Your task to perform on an android device: empty trash in the gmail app Image 0: 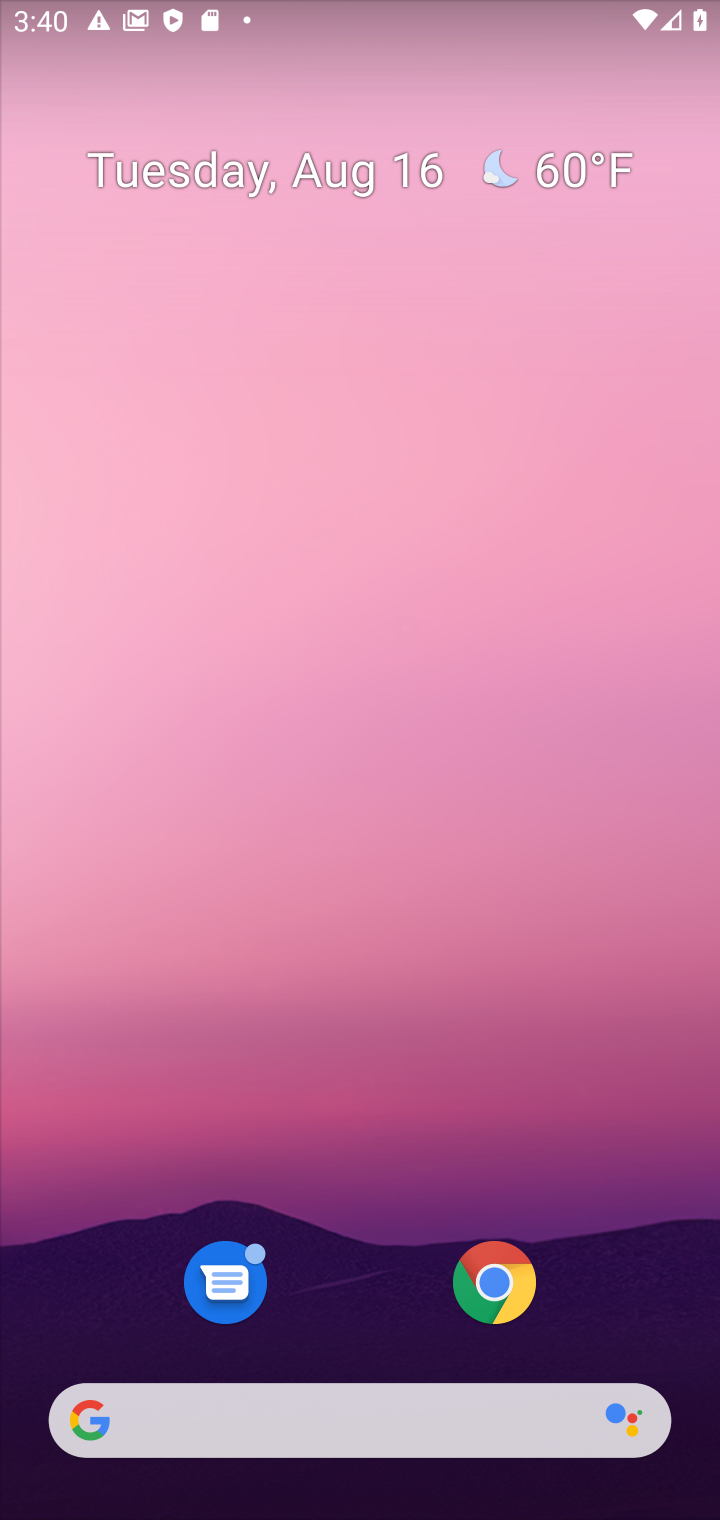
Step 0: drag from (324, 1318) to (531, 204)
Your task to perform on an android device: empty trash in the gmail app Image 1: 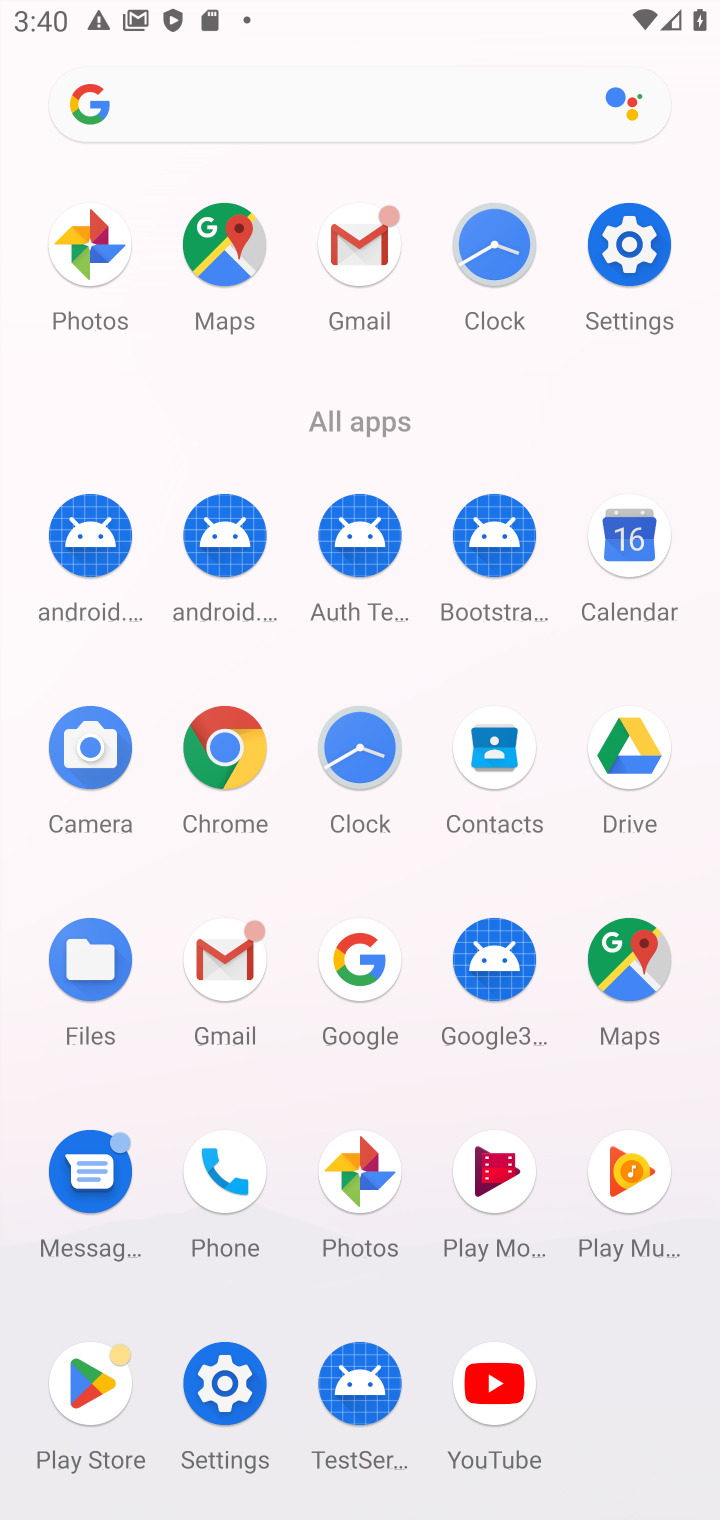
Step 1: click (364, 242)
Your task to perform on an android device: empty trash in the gmail app Image 2: 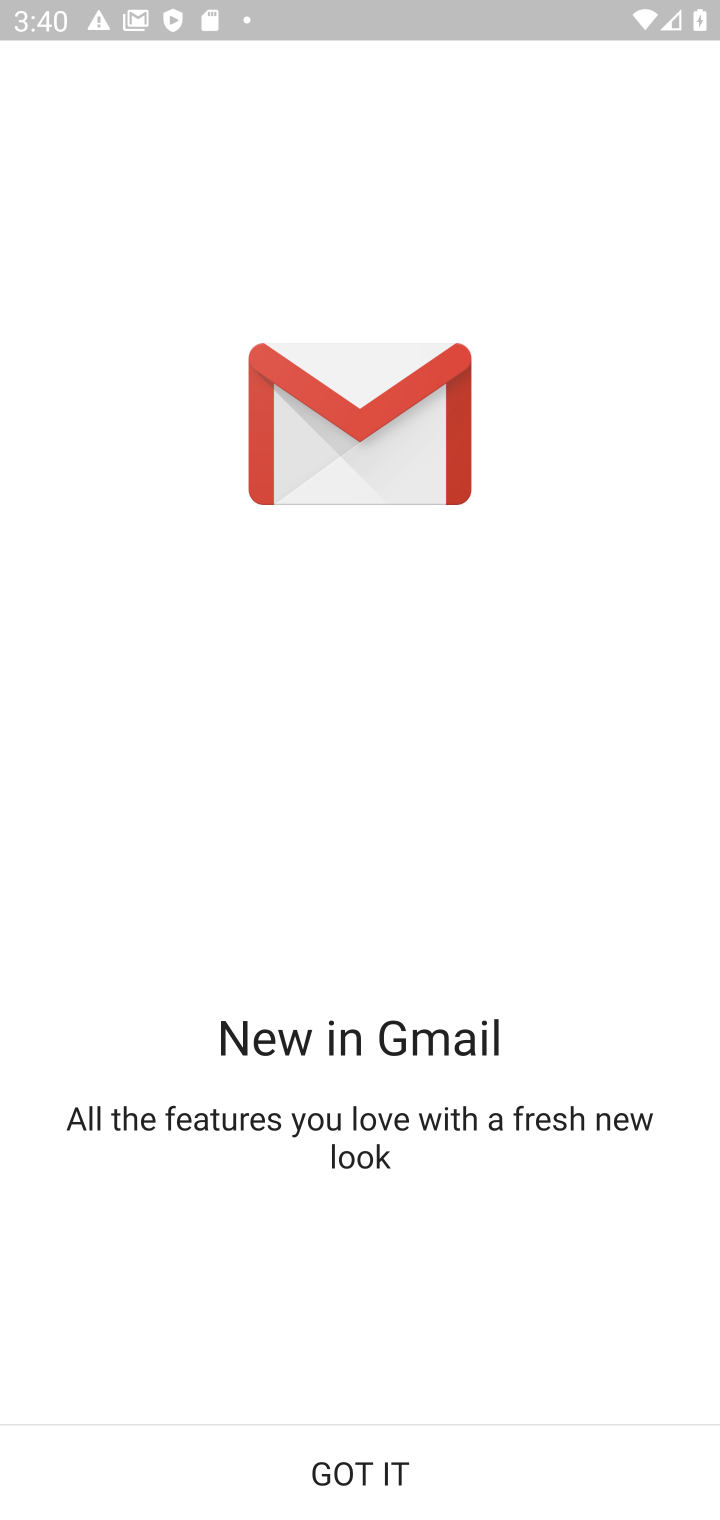
Step 2: click (348, 1445)
Your task to perform on an android device: empty trash in the gmail app Image 3: 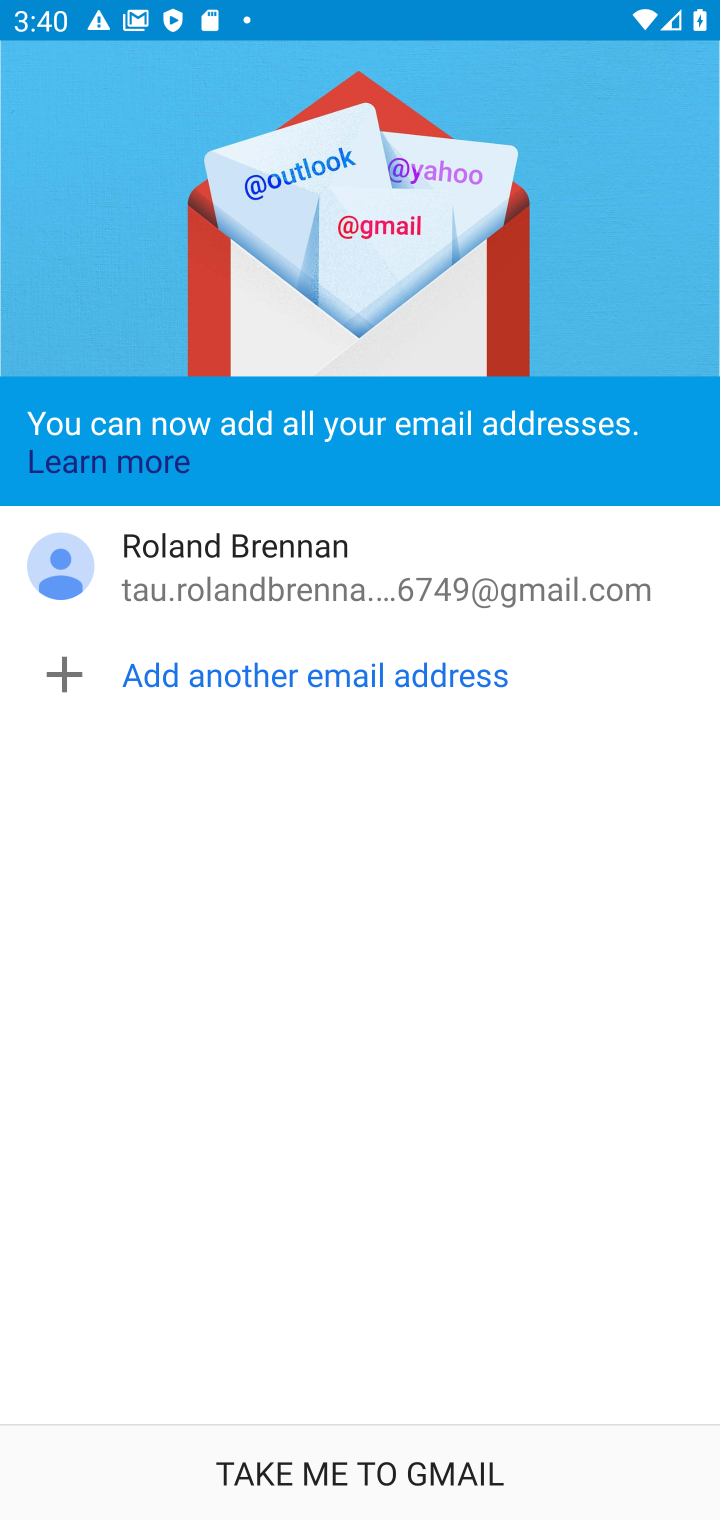
Step 3: click (342, 1459)
Your task to perform on an android device: empty trash in the gmail app Image 4: 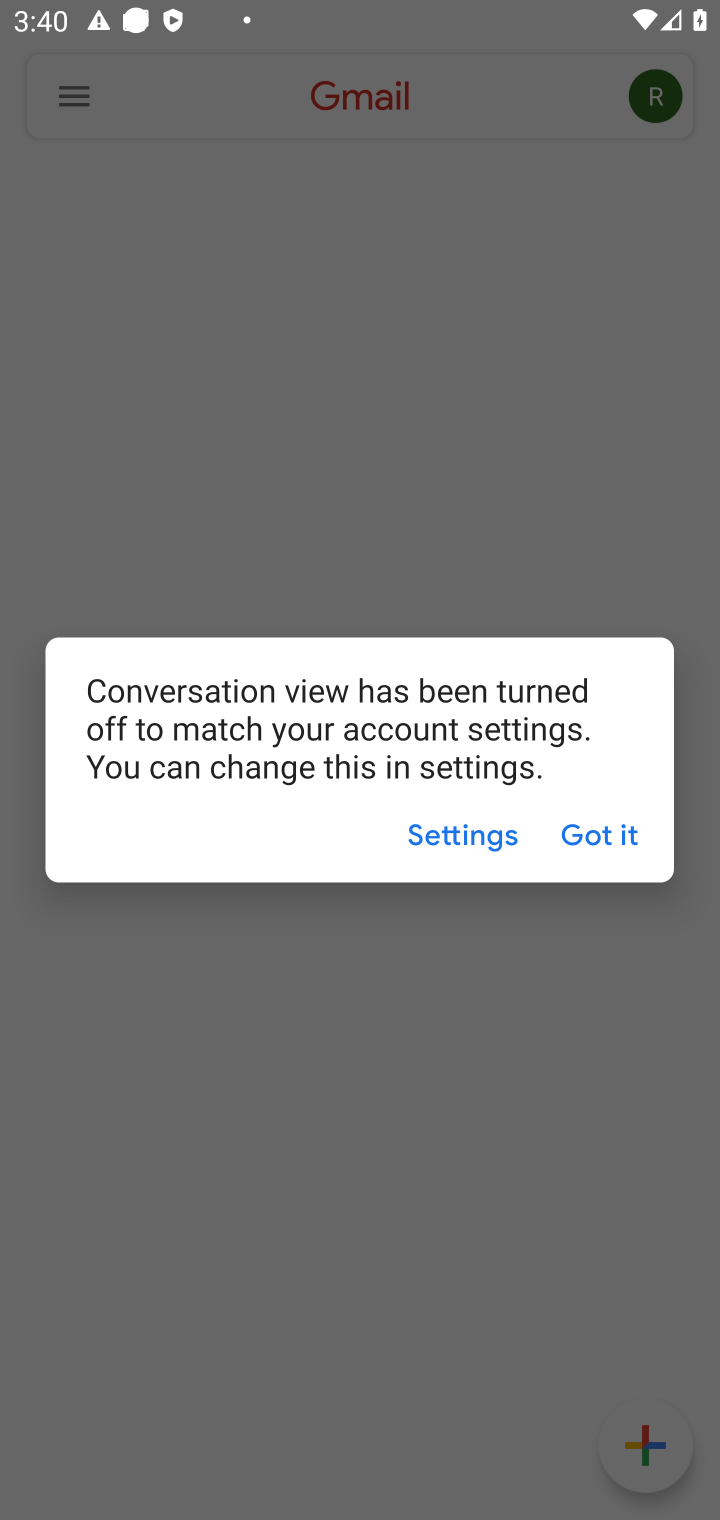
Step 4: click (593, 816)
Your task to perform on an android device: empty trash in the gmail app Image 5: 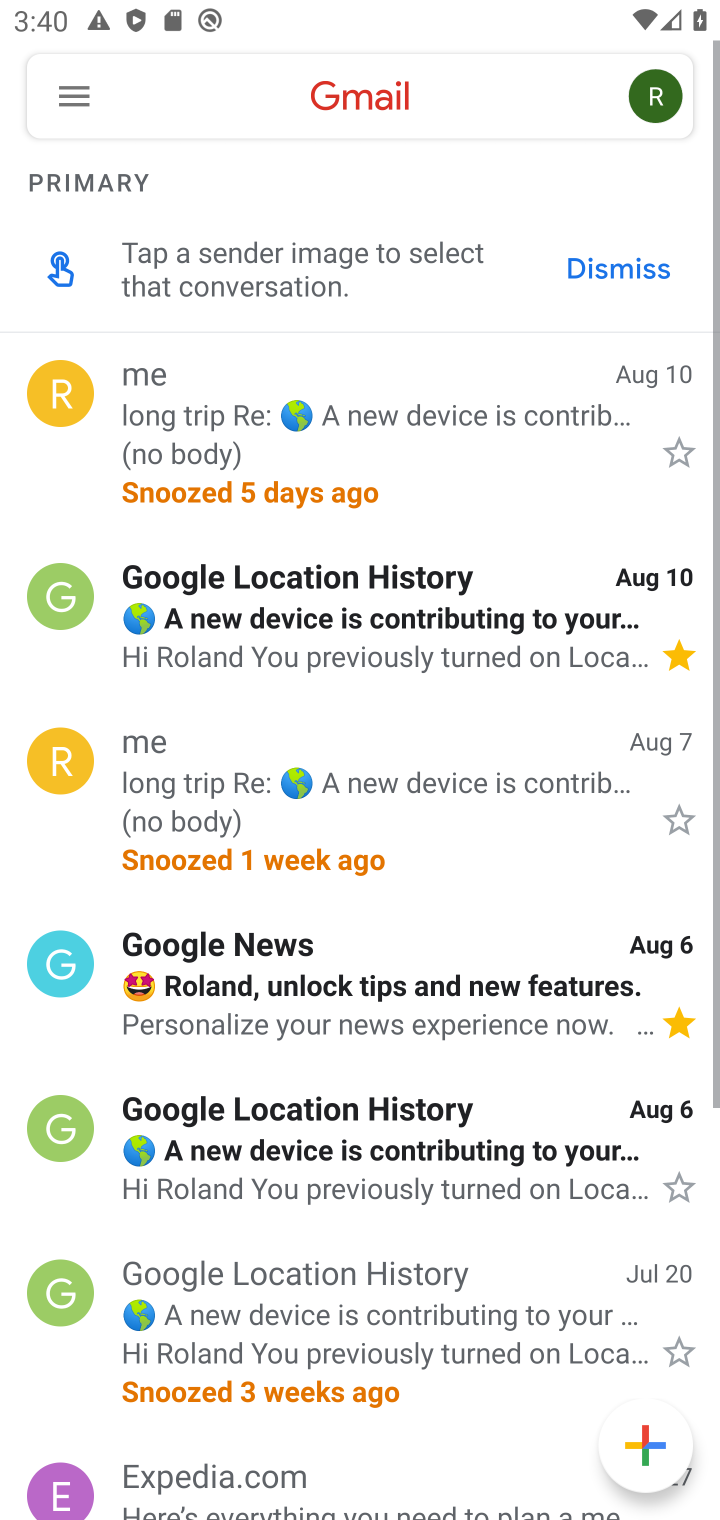
Step 5: click (72, 79)
Your task to perform on an android device: empty trash in the gmail app Image 6: 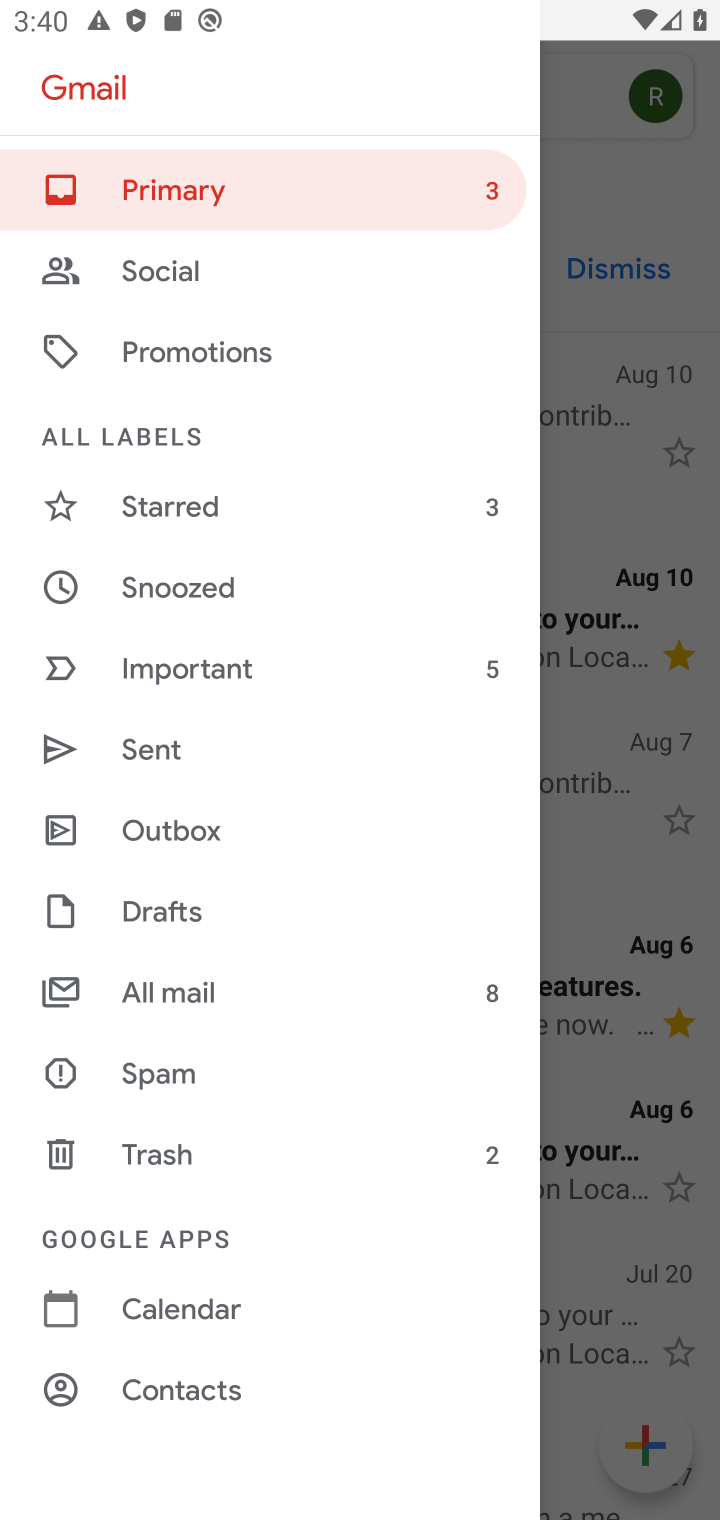
Step 6: click (158, 1153)
Your task to perform on an android device: empty trash in the gmail app Image 7: 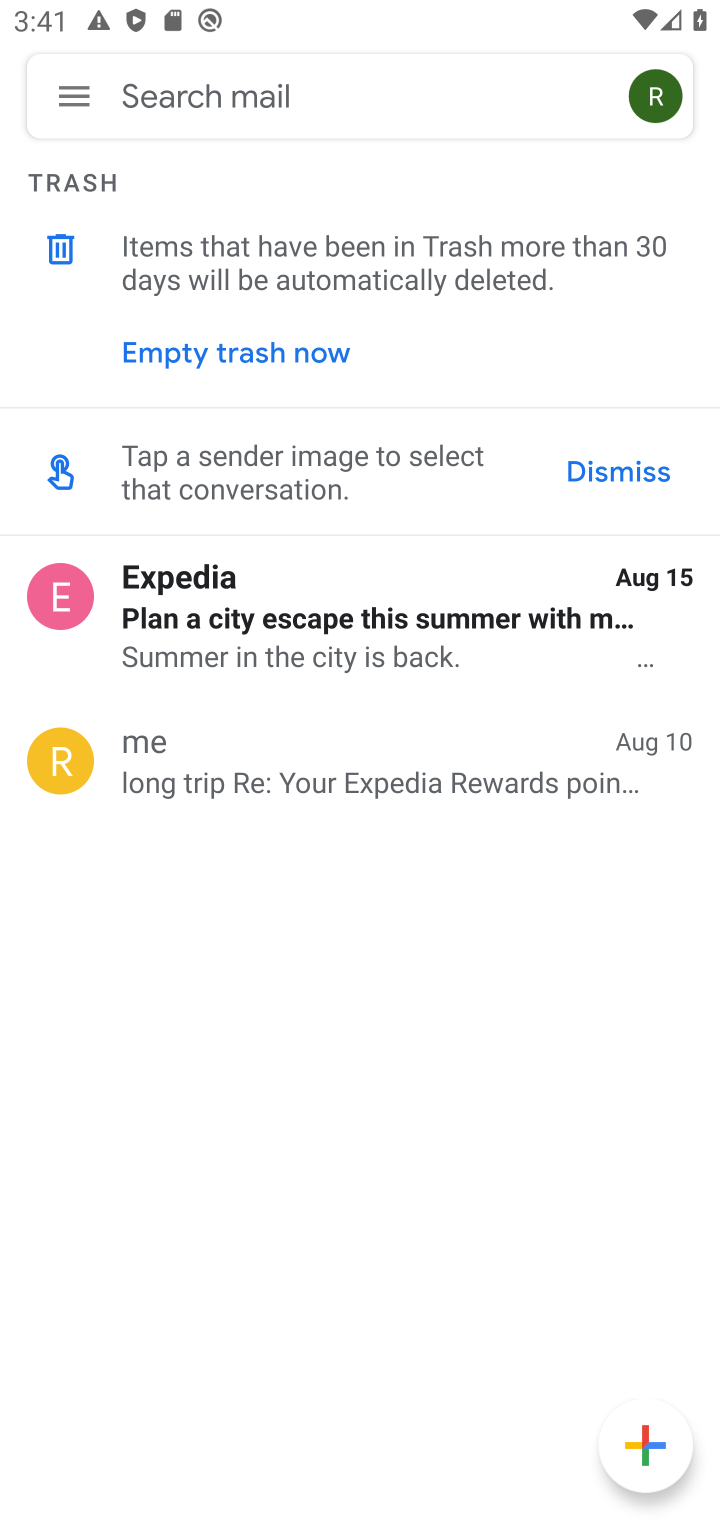
Step 7: click (269, 357)
Your task to perform on an android device: empty trash in the gmail app Image 8: 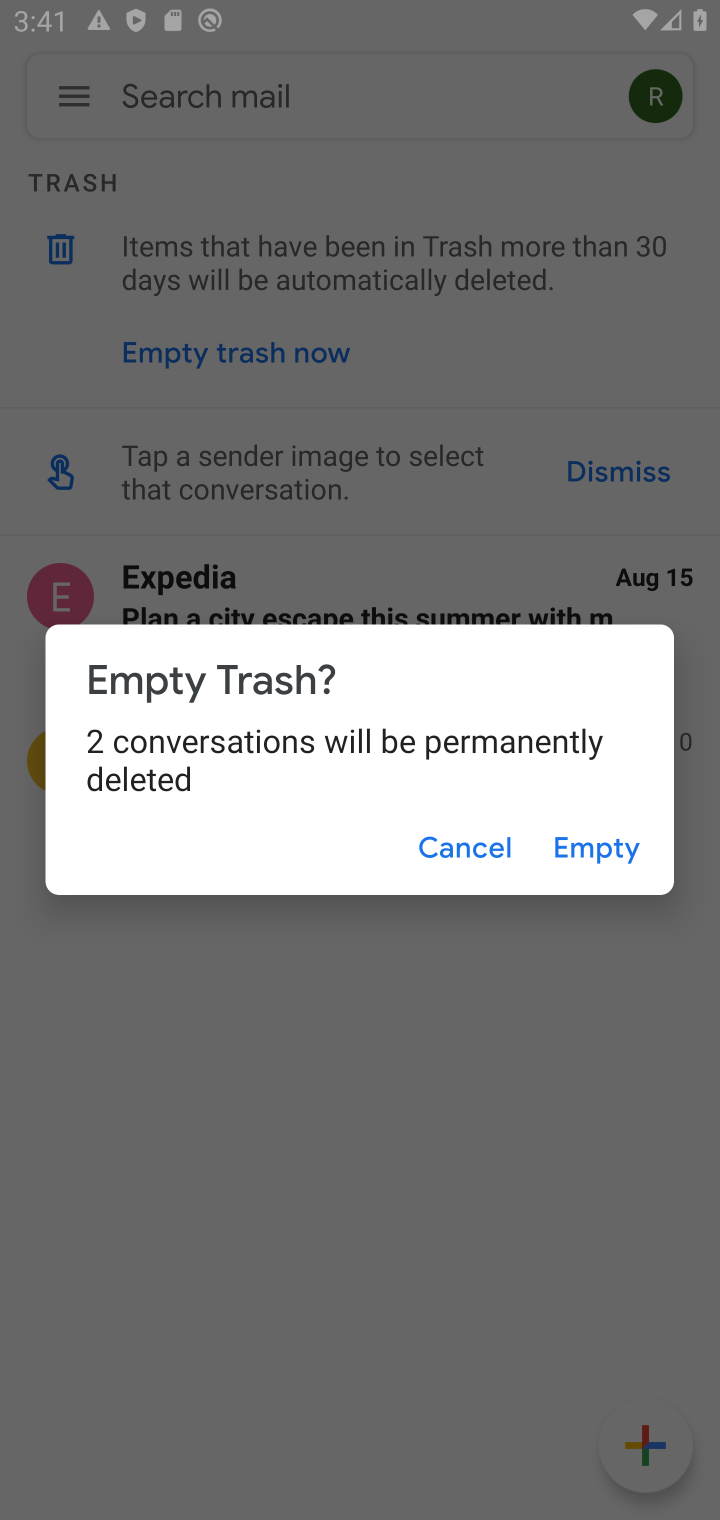
Step 8: click (558, 862)
Your task to perform on an android device: empty trash in the gmail app Image 9: 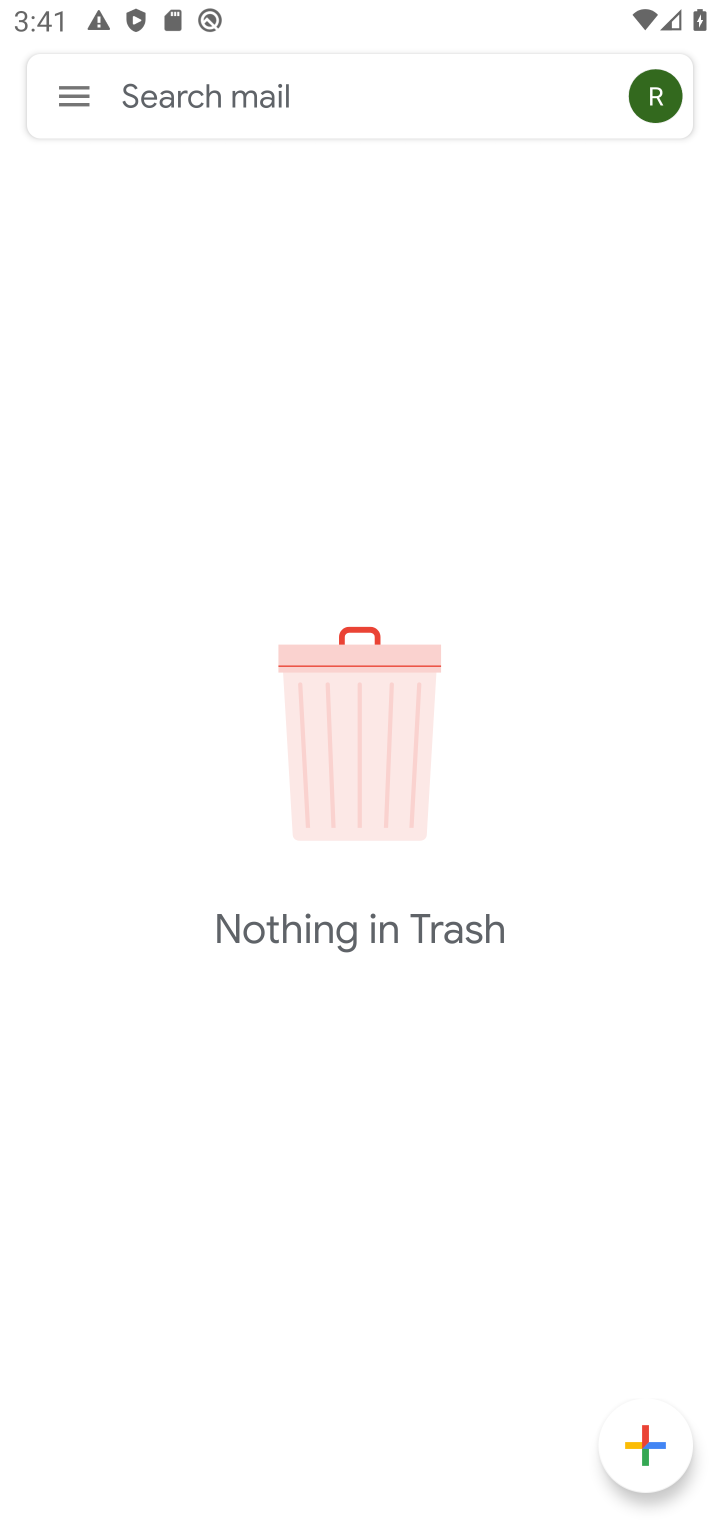
Step 9: task complete